Your task to perform on an android device: Go to Yahoo.com Image 0: 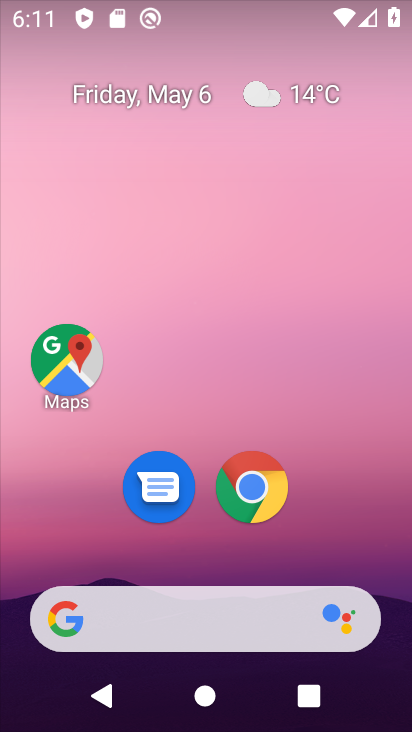
Step 0: drag from (357, 538) to (410, 67)
Your task to perform on an android device: Go to Yahoo.com Image 1: 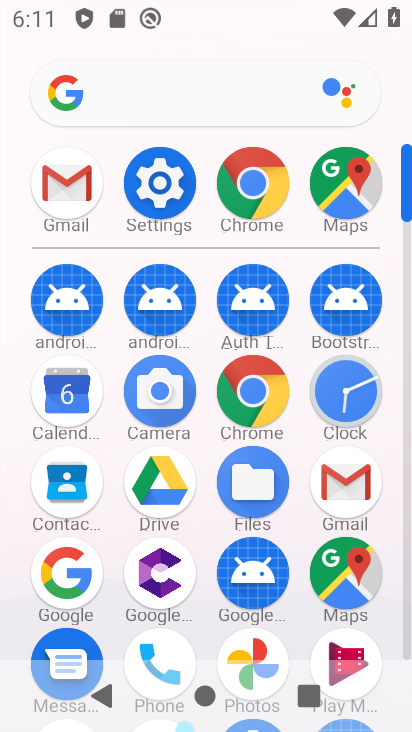
Step 1: drag from (295, 254) to (341, 53)
Your task to perform on an android device: Go to Yahoo.com Image 2: 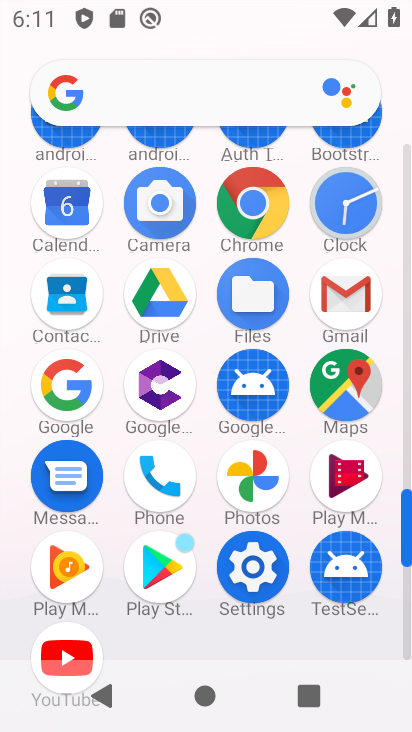
Step 2: click (269, 216)
Your task to perform on an android device: Go to Yahoo.com Image 3: 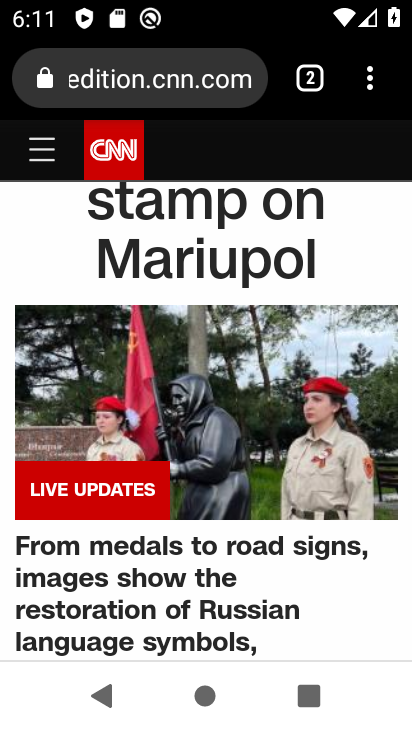
Step 3: drag from (364, 80) to (84, 155)
Your task to perform on an android device: Go to Yahoo.com Image 4: 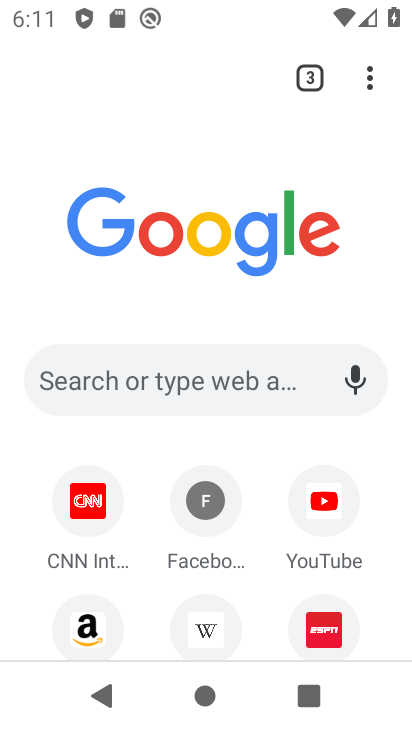
Step 4: click (190, 381)
Your task to perform on an android device: Go to Yahoo.com Image 5: 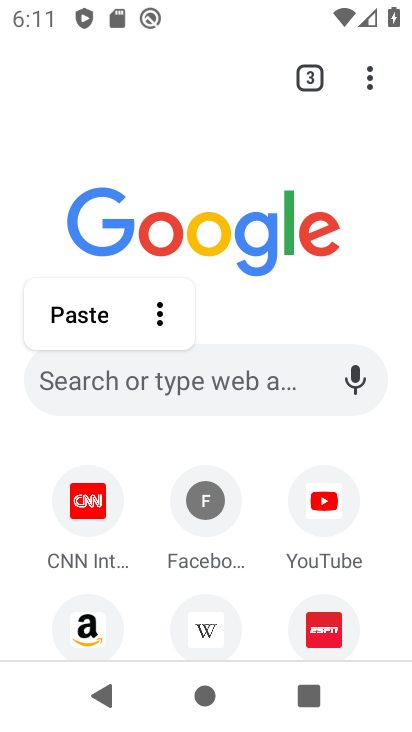
Step 5: type " Yahoo.com"
Your task to perform on an android device: Go to Yahoo.com Image 6: 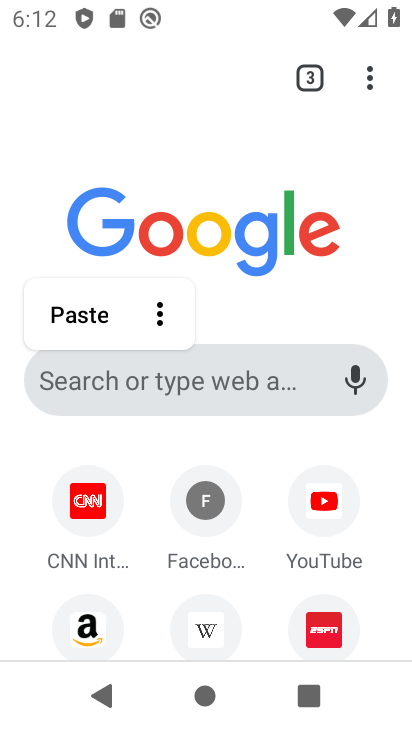
Step 6: click (148, 369)
Your task to perform on an android device: Go to Yahoo.com Image 7: 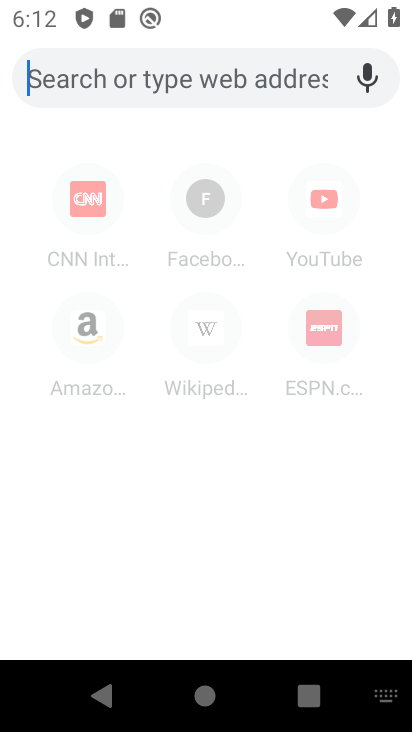
Step 7: type " Yahoo.com"
Your task to perform on an android device: Go to Yahoo.com Image 8: 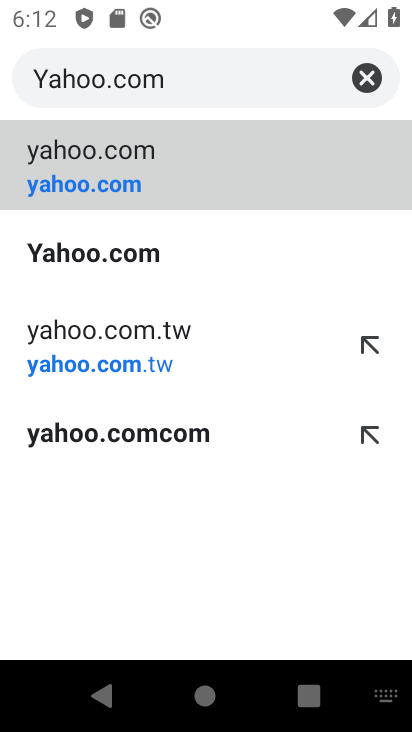
Step 8: click (119, 181)
Your task to perform on an android device: Go to Yahoo.com Image 9: 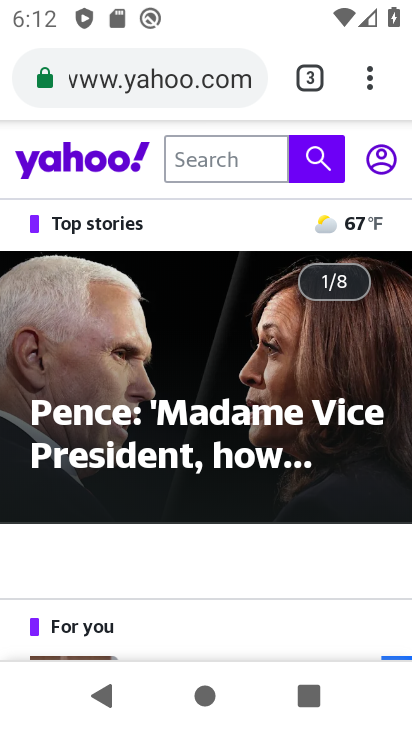
Step 9: task complete